Your task to perform on an android device: toggle wifi Image 0: 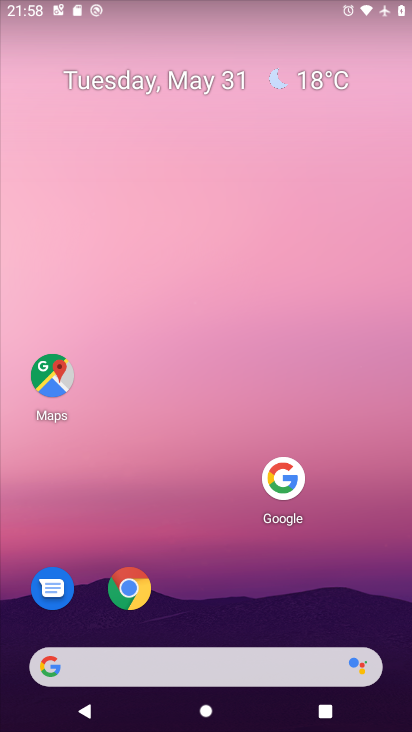
Step 0: press home button
Your task to perform on an android device: toggle wifi Image 1: 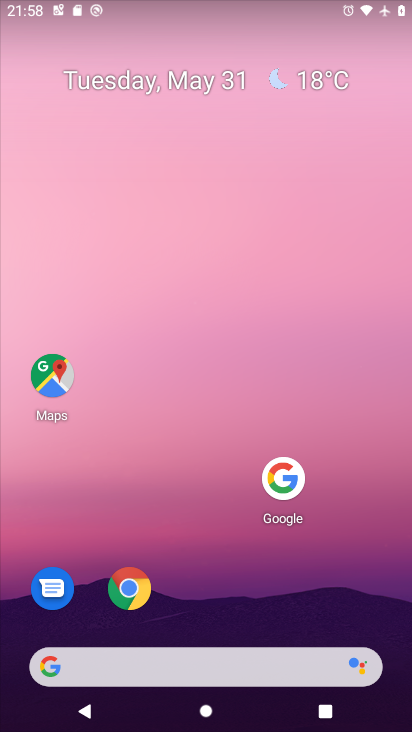
Step 1: drag from (157, 666) to (314, 59)
Your task to perform on an android device: toggle wifi Image 2: 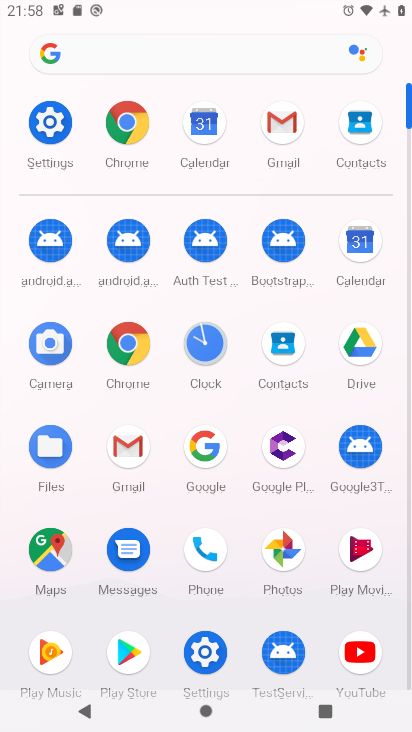
Step 2: click (40, 128)
Your task to perform on an android device: toggle wifi Image 3: 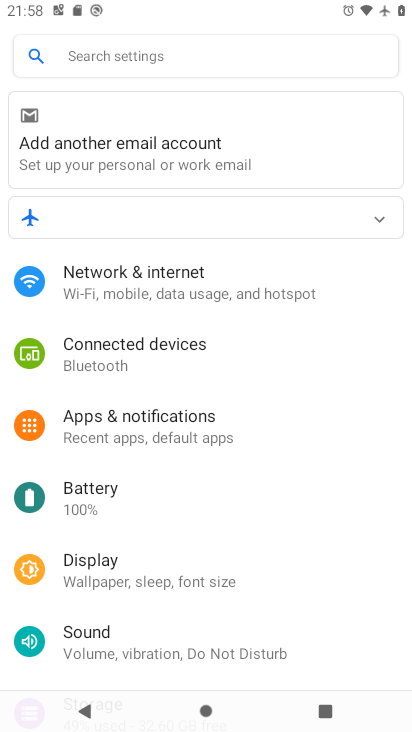
Step 3: click (160, 269)
Your task to perform on an android device: toggle wifi Image 4: 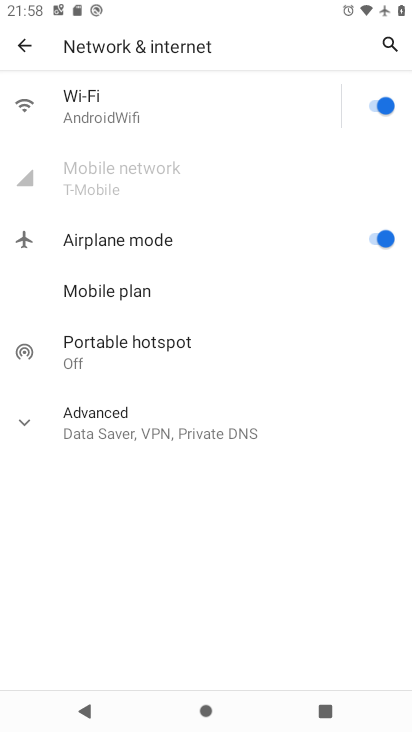
Step 4: click (375, 103)
Your task to perform on an android device: toggle wifi Image 5: 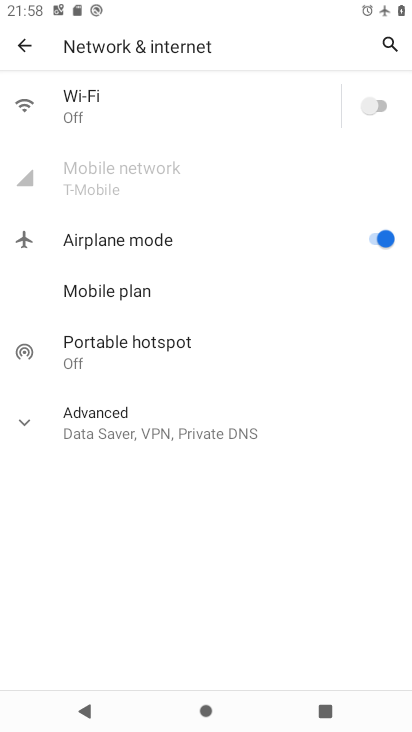
Step 5: task complete